Your task to perform on an android device: Clear all items from cart on target. Add corsair k70 to the cart on target Image 0: 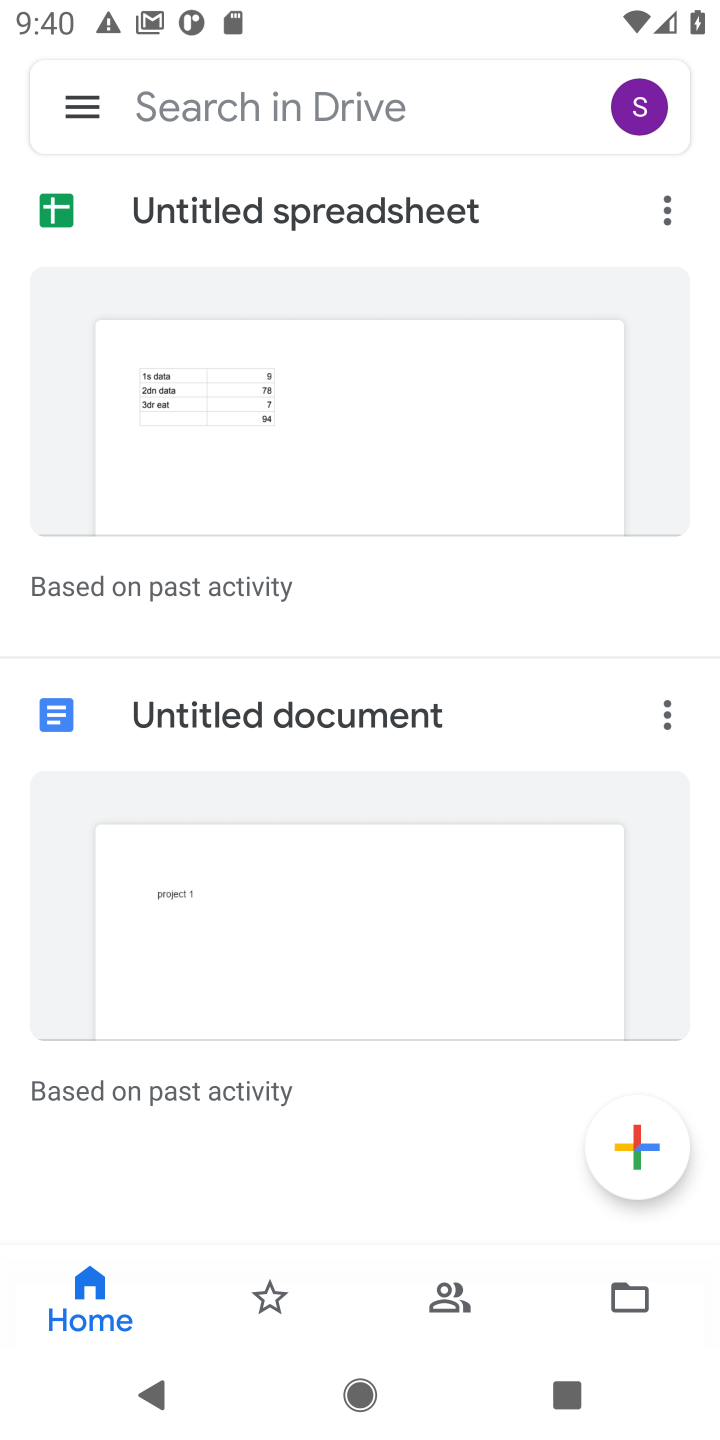
Step 0: press home button
Your task to perform on an android device: Clear all items from cart on target. Add corsair k70 to the cart on target Image 1: 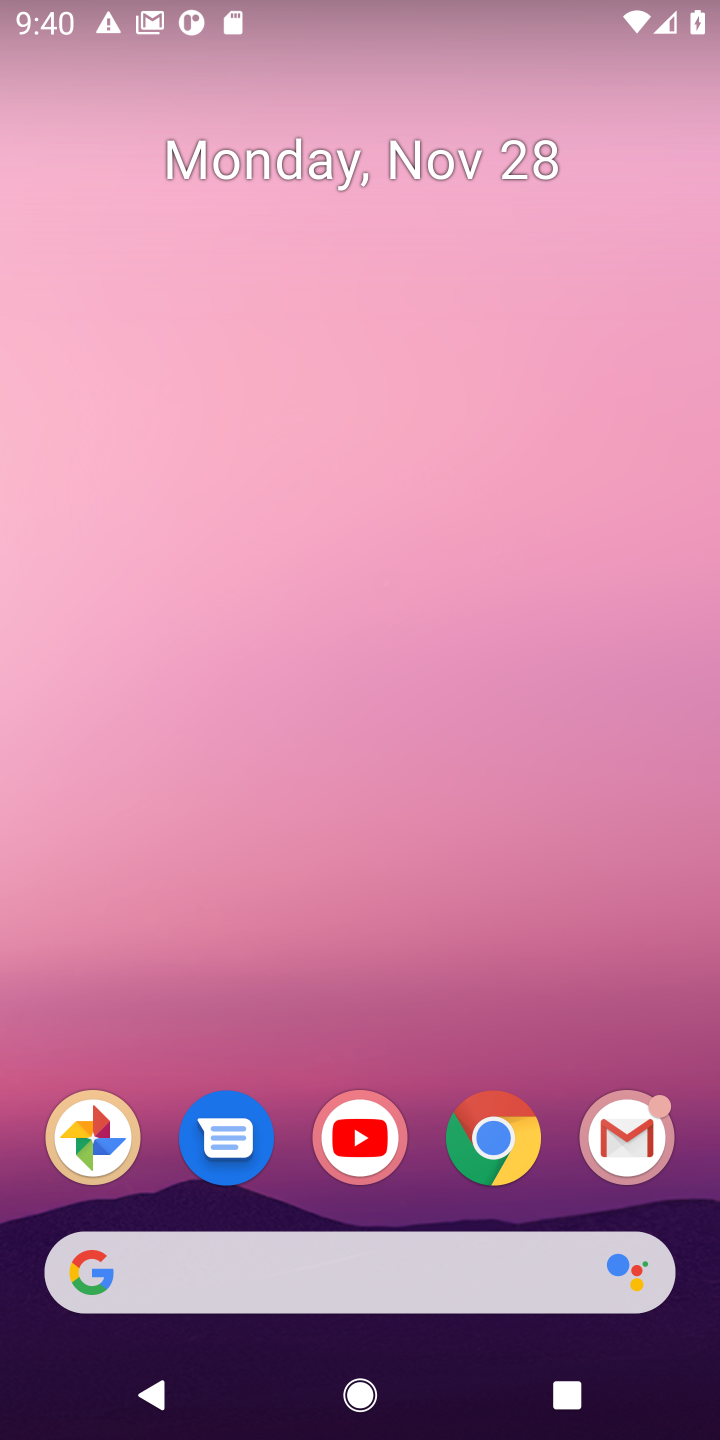
Step 1: click (500, 1118)
Your task to perform on an android device: Clear all items from cart on target. Add corsair k70 to the cart on target Image 2: 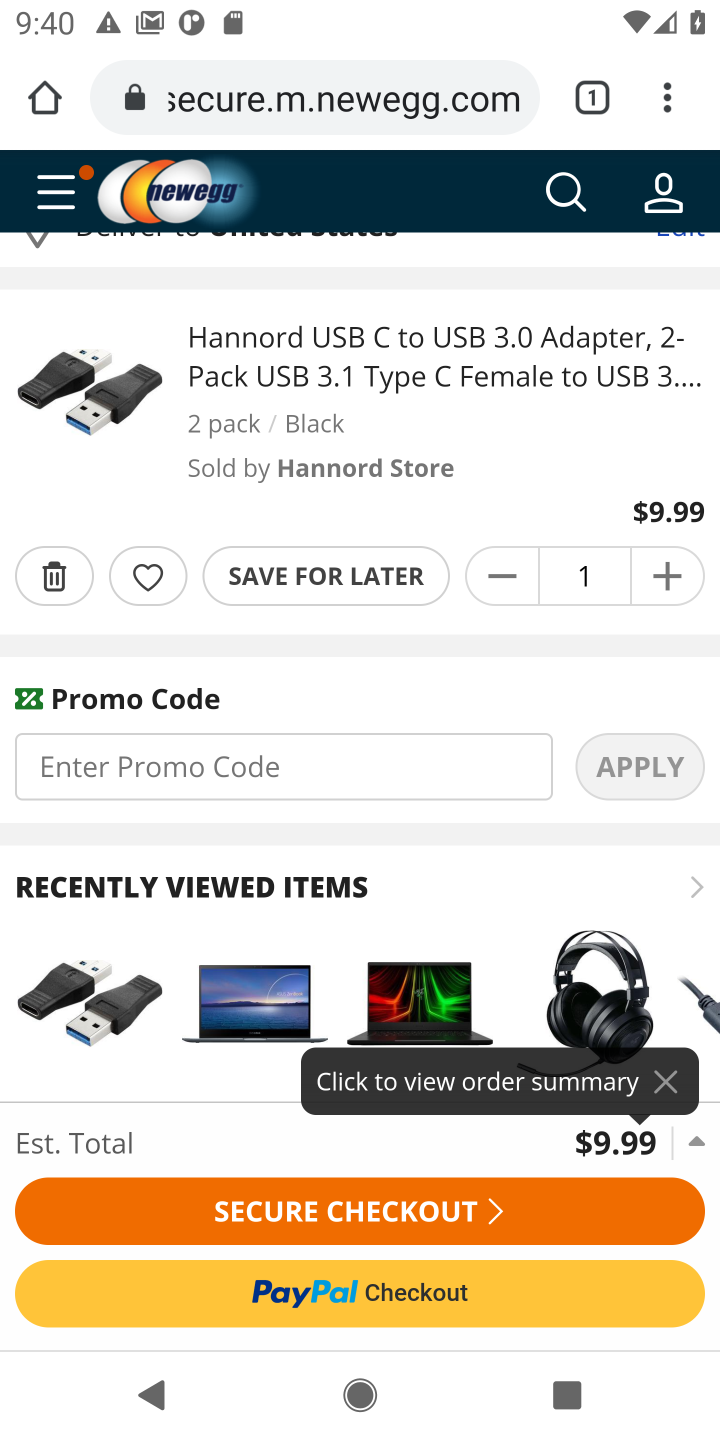
Step 2: click (243, 111)
Your task to perform on an android device: Clear all items from cart on target. Add corsair k70 to the cart on target Image 3: 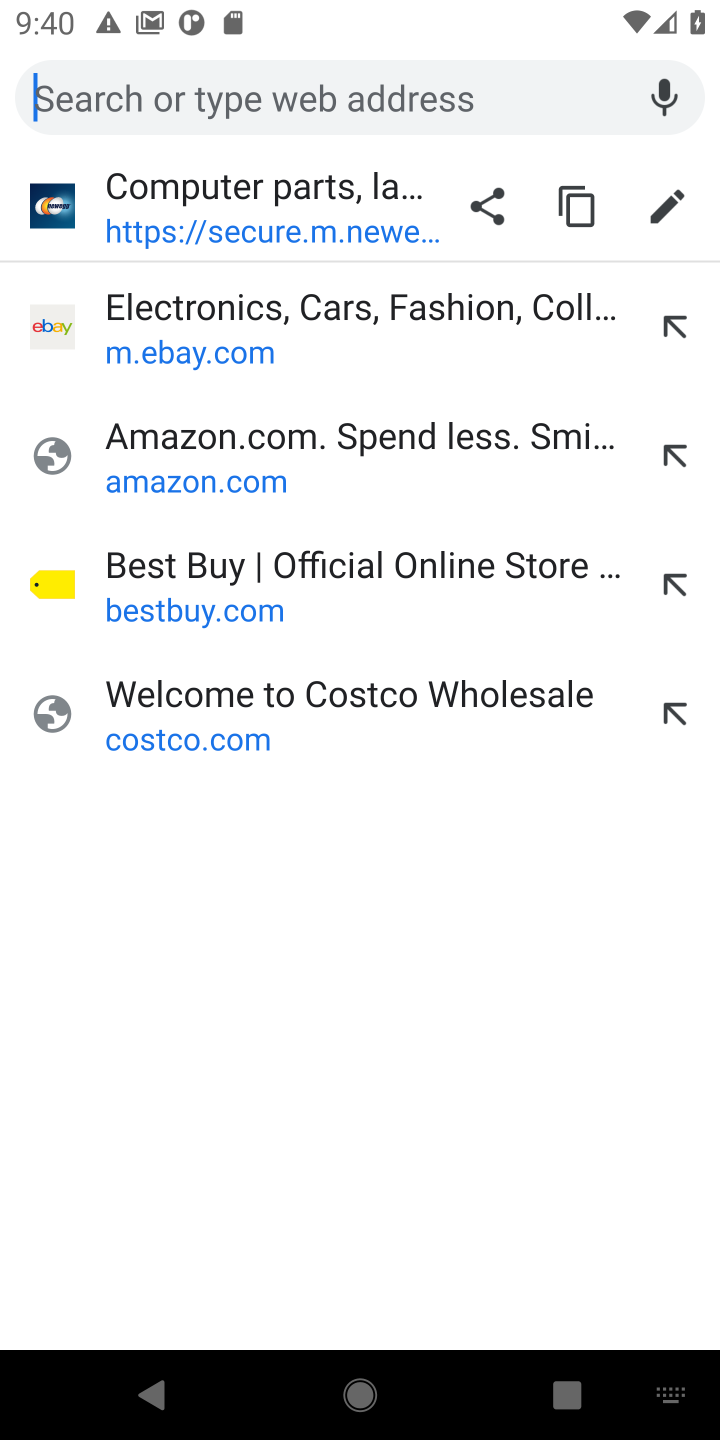
Step 3: type "target.com"
Your task to perform on an android device: Clear all items from cart on target. Add corsair k70 to the cart on target Image 4: 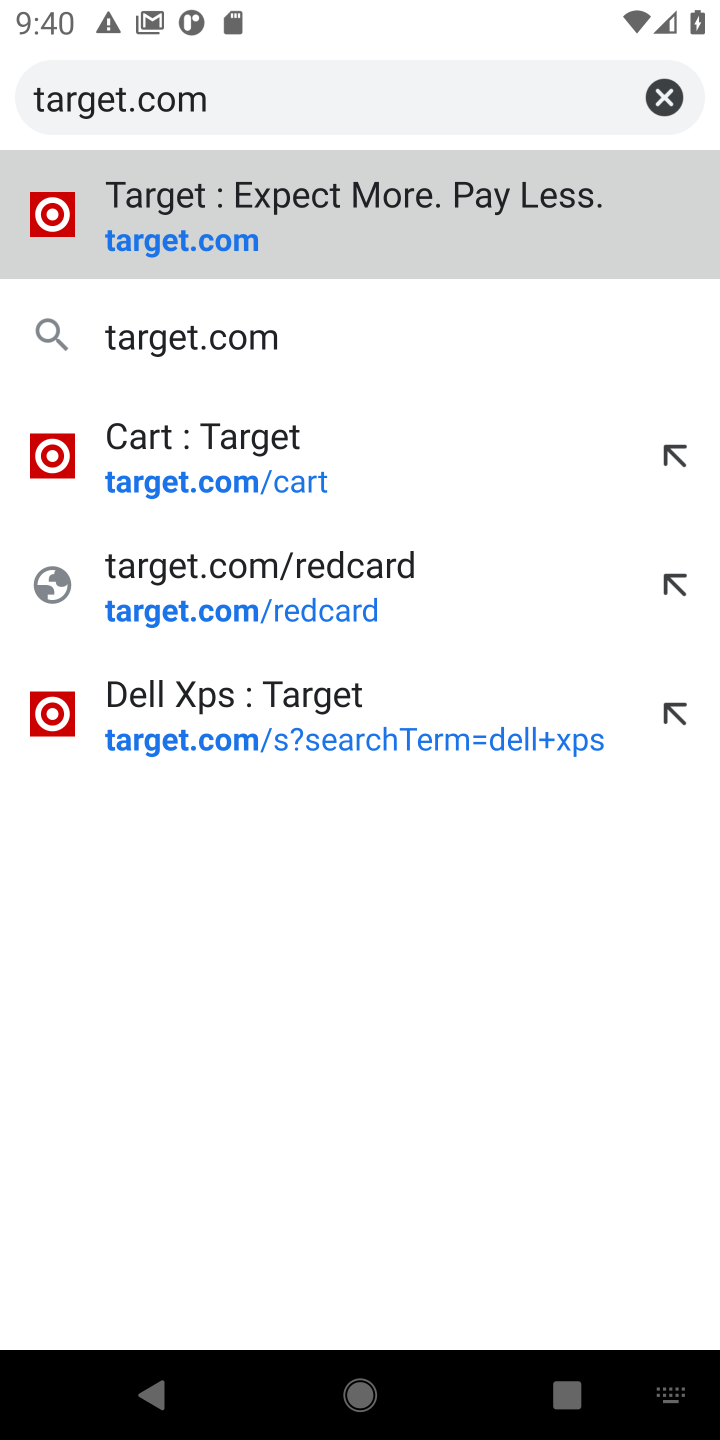
Step 4: click (179, 256)
Your task to perform on an android device: Clear all items from cart on target. Add corsair k70 to the cart on target Image 5: 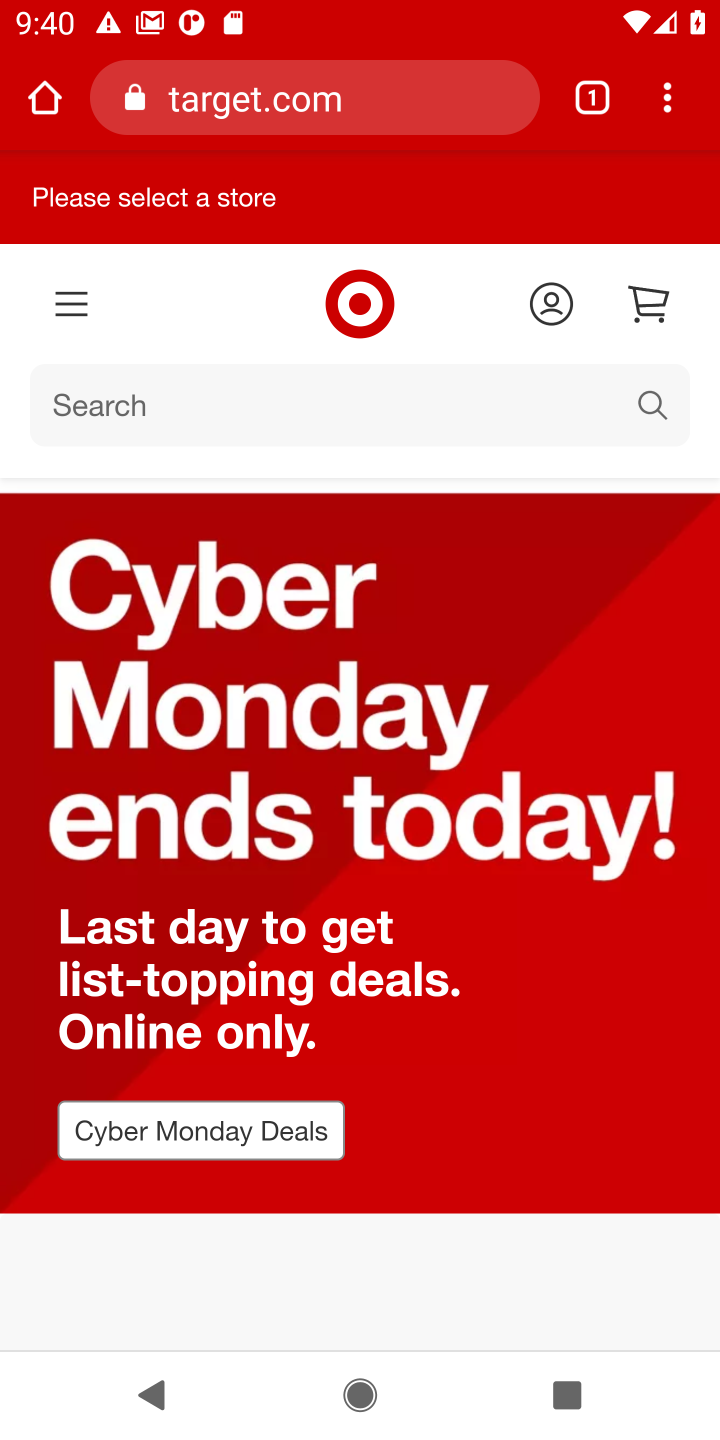
Step 5: click (638, 304)
Your task to perform on an android device: Clear all items from cart on target. Add corsair k70 to the cart on target Image 6: 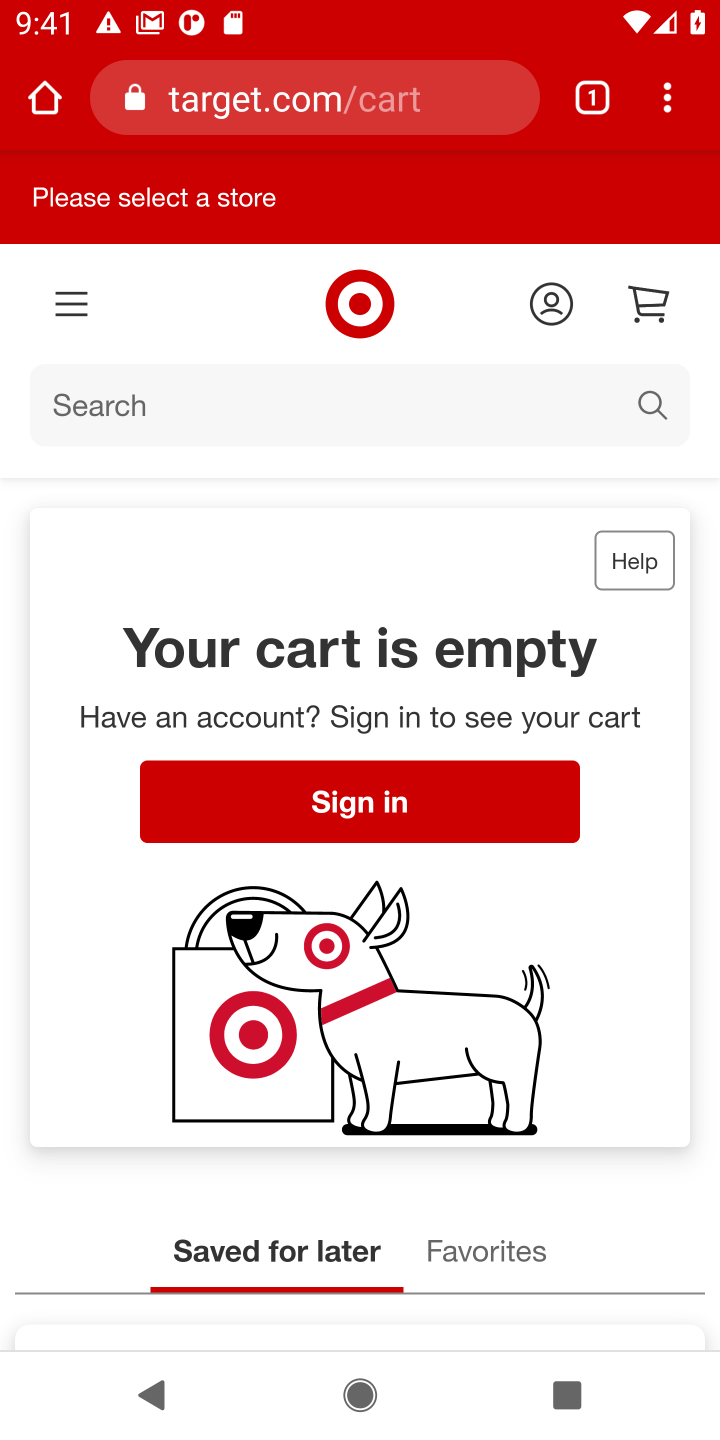
Step 6: click (200, 407)
Your task to perform on an android device: Clear all items from cart on target. Add corsair k70 to the cart on target Image 7: 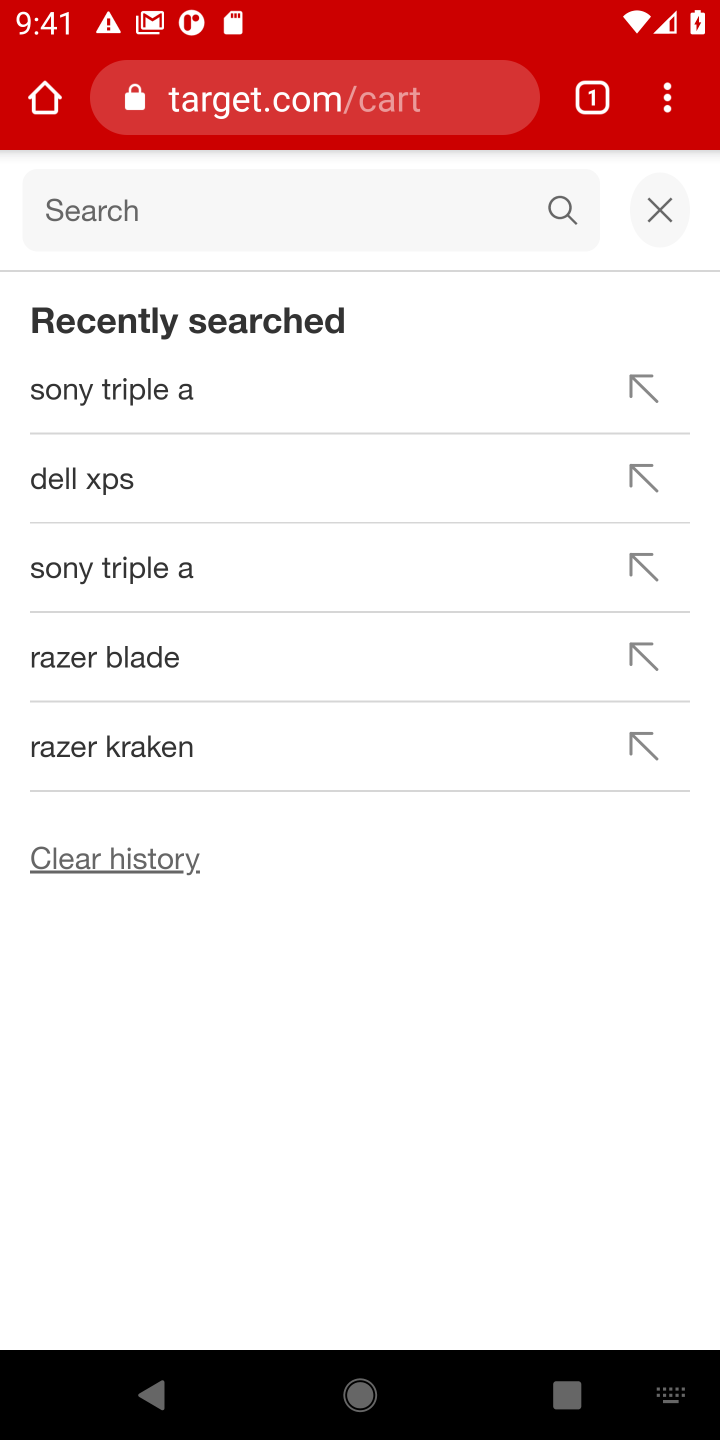
Step 7: type " corsair k70 "
Your task to perform on an android device: Clear all items from cart on target. Add corsair k70 to the cart on target Image 8: 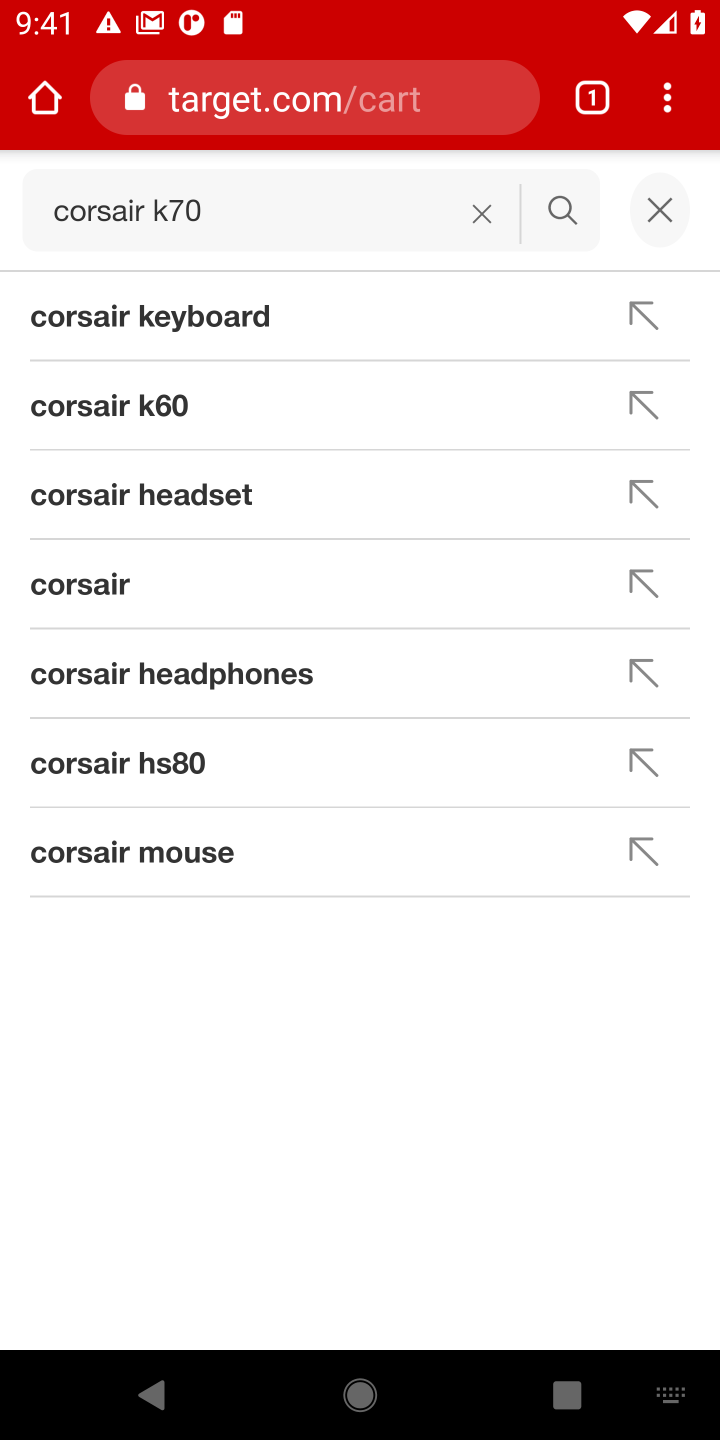
Step 8: click (574, 218)
Your task to perform on an android device: Clear all items from cart on target. Add corsair k70 to the cart on target Image 9: 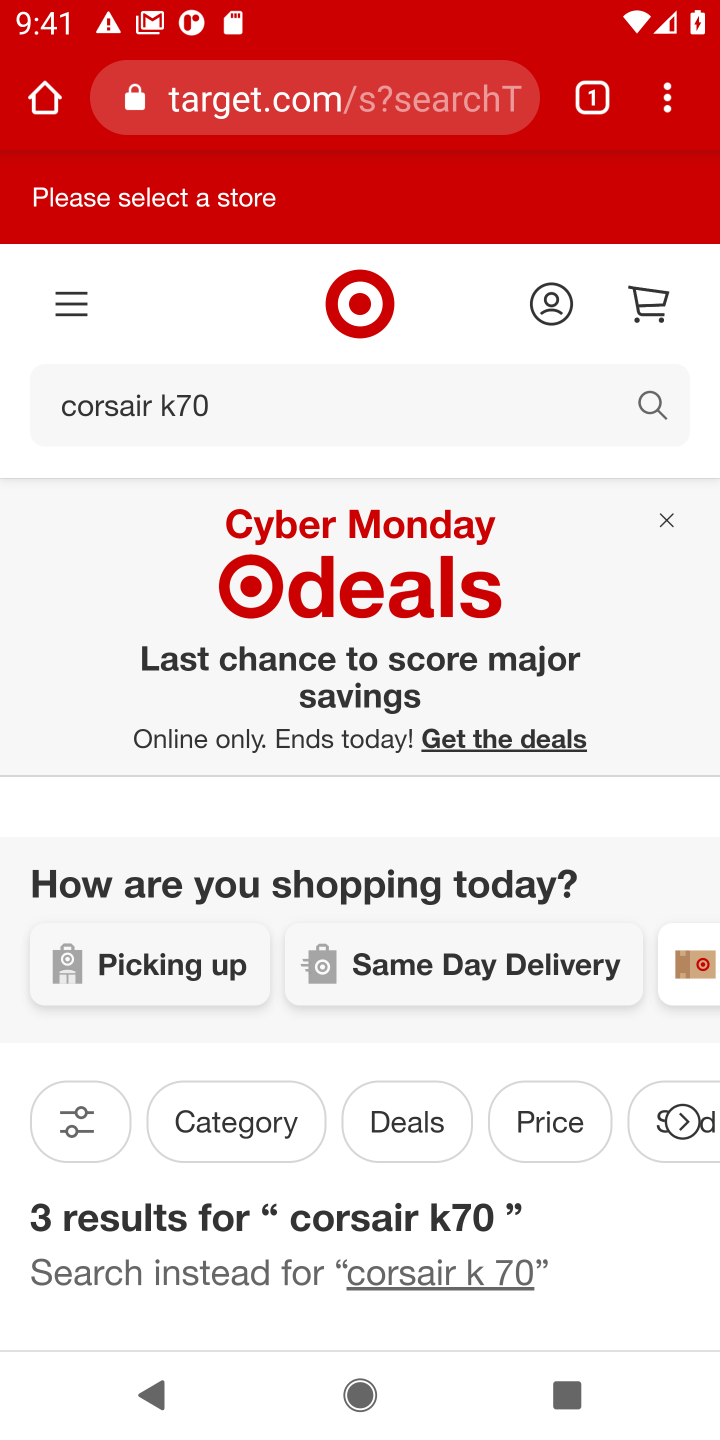
Step 9: task complete